Your task to perform on an android device: Is it going to rain today? Image 0: 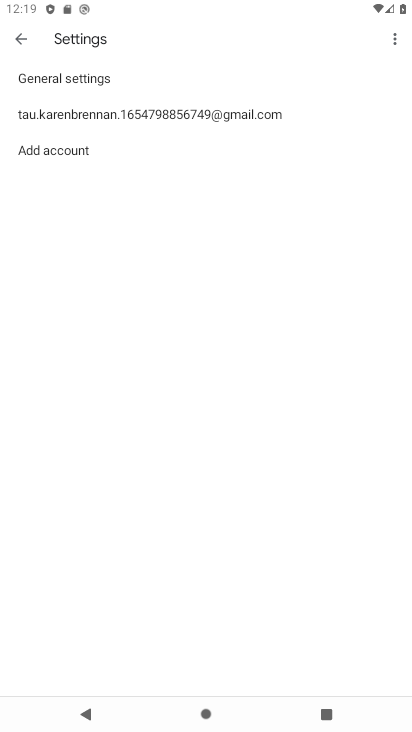
Step 0: press home button
Your task to perform on an android device: Is it going to rain today? Image 1: 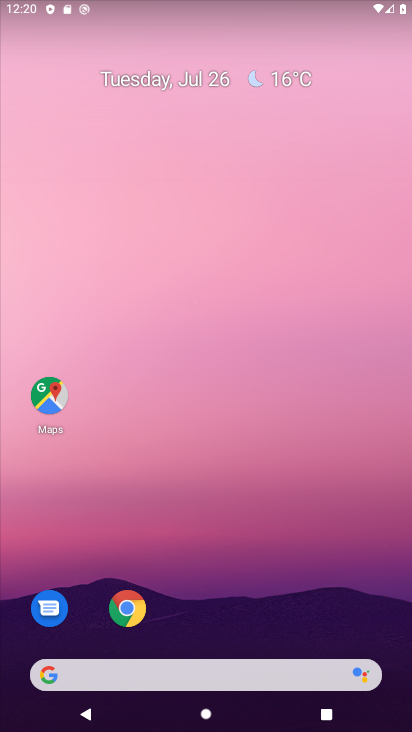
Step 1: drag from (298, 639) to (255, 62)
Your task to perform on an android device: Is it going to rain today? Image 2: 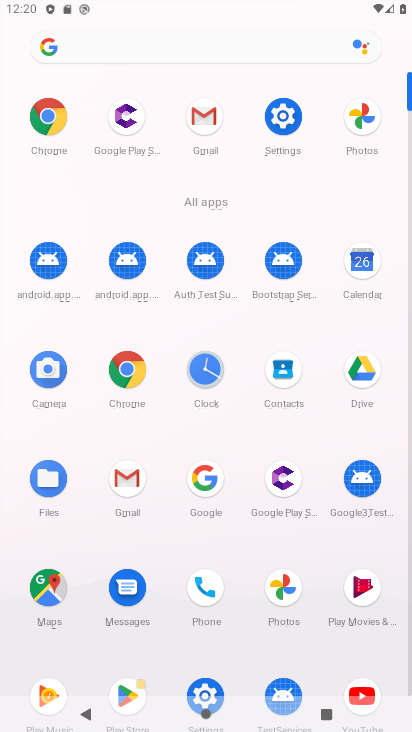
Step 2: click (261, 53)
Your task to perform on an android device: Is it going to rain today? Image 3: 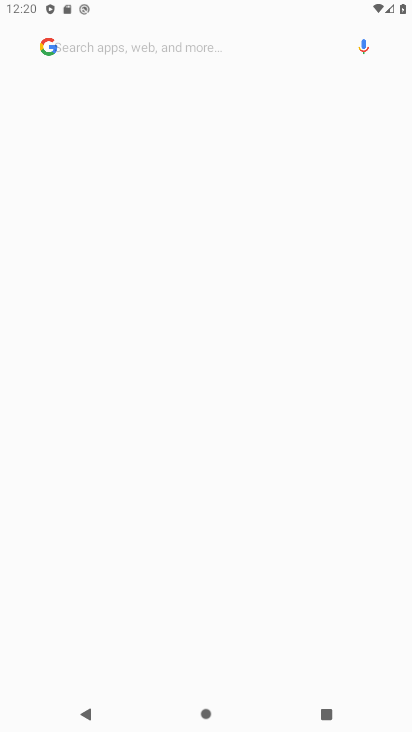
Step 3: click (261, 53)
Your task to perform on an android device: Is it going to rain today? Image 4: 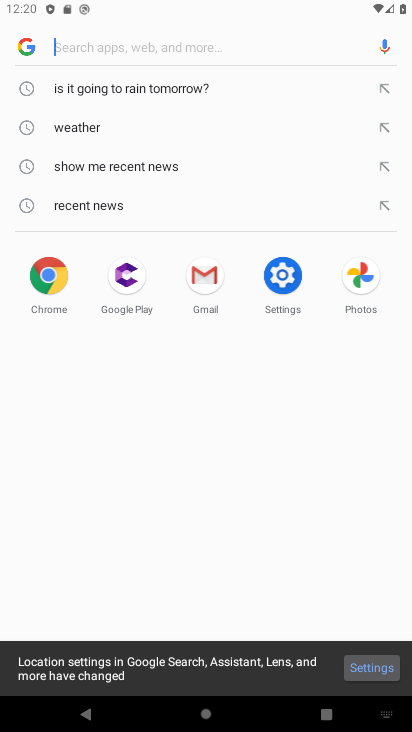
Step 4: click (190, 125)
Your task to perform on an android device: Is it going to rain today? Image 5: 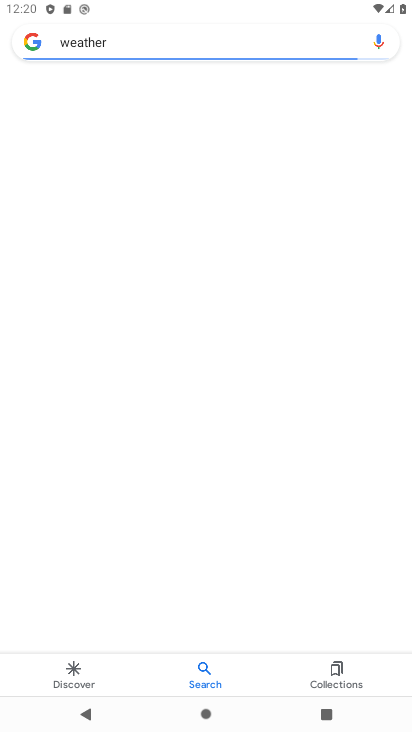
Step 5: task complete